Your task to perform on an android device: move a message to another label in the gmail app Image 0: 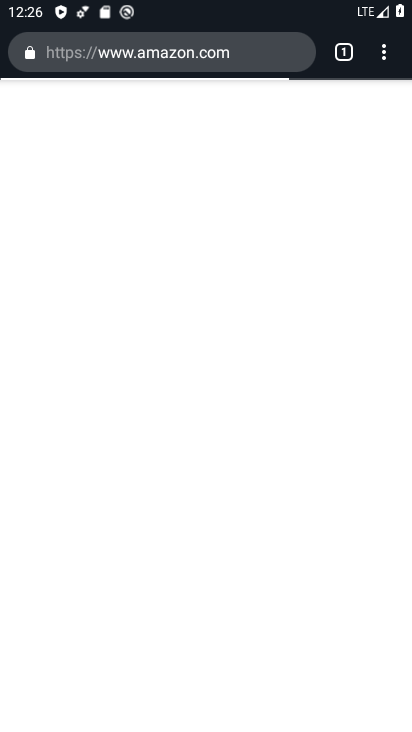
Step 0: press home button
Your task to perform on an android device: move a message to another label in the gmail app Image 1: 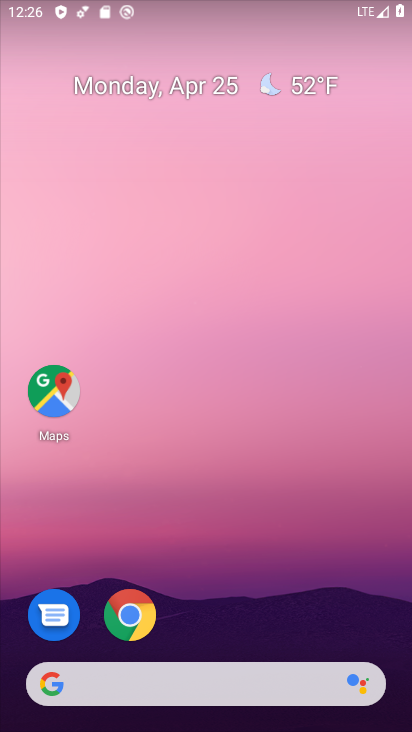
Step 1: drag from (147, 646) to (205, 241)
Your task to perform on an android device: move a message to another label in the gmail app Image 2: 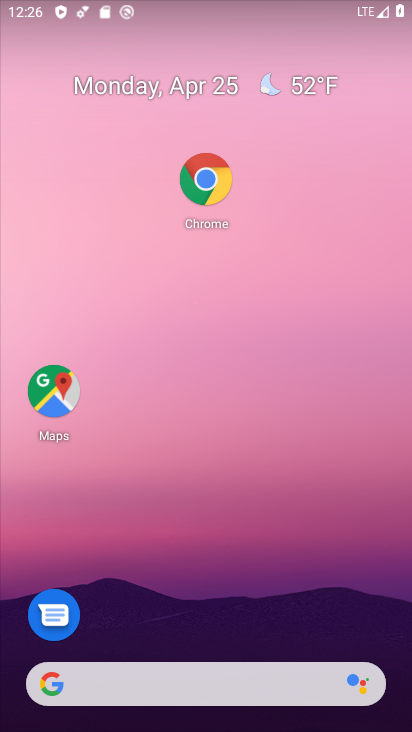
Step 2: drag from (173, 683) to (304, 115)
Your task to perform on an android device: move a message to another label in the gmail app Image 3: 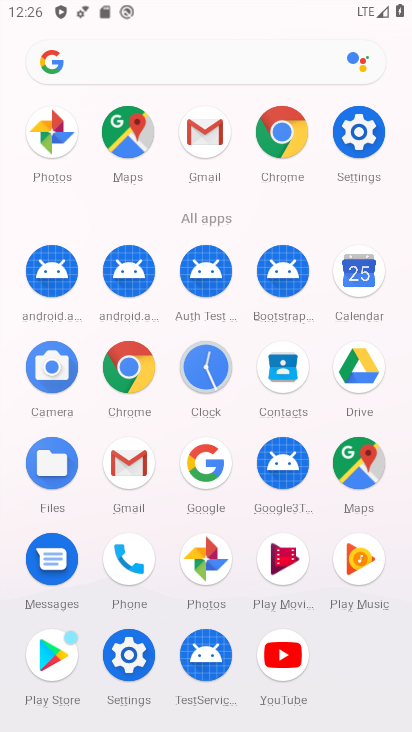
Step 3: click (203, 136)
Your task to perform on an android device: move a message to another label in the gmail app Image 4: 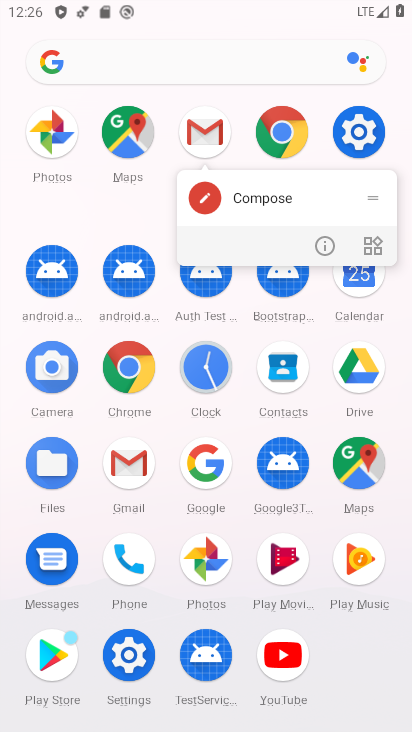
Step 4: click (195, 143)
Your task to perform on an android device: move a message to another label in the gmail app Image 5: 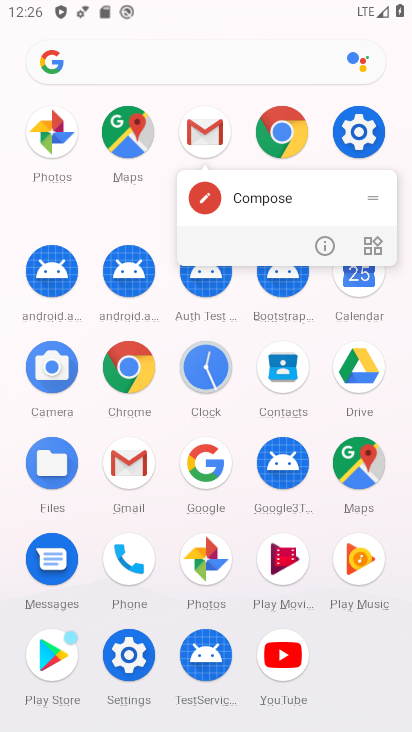
Step 5: click (200, 140)
Your task to perform on an android device: move a message to another label in the gmail app Image 6: 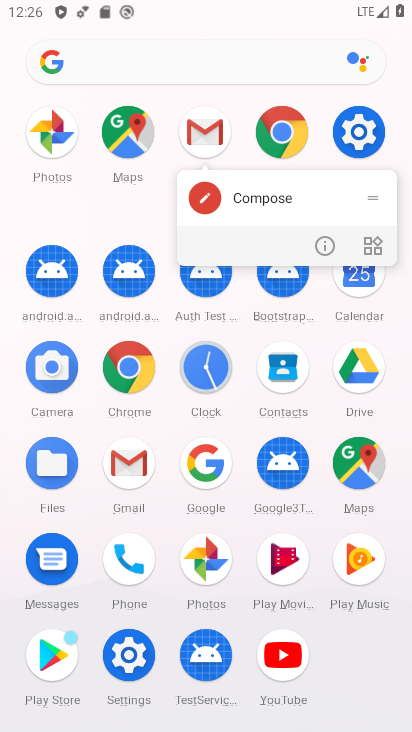
Step 6: click (205, 134)
Your task to perform on an android device: move a message to another label in the gmail app Image 7: 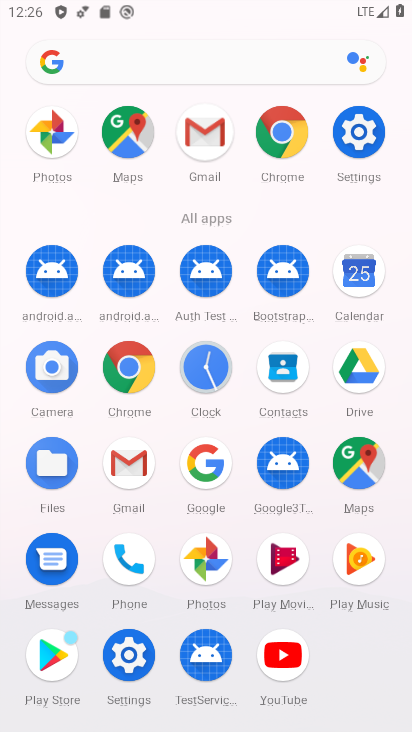
Step 7: click (198, 147)
Your task to perform on an android device: move a message to another label in the gmail app Image 8: 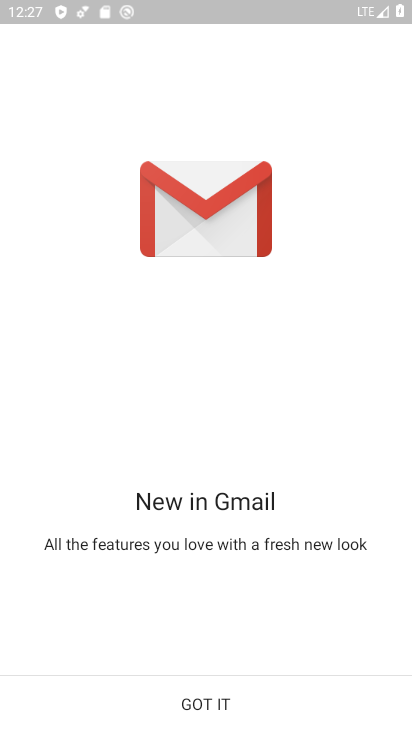
Step 8: click (226, 708)
Your task to perform on an android device: move a message to another label in the gmail app Image 9: 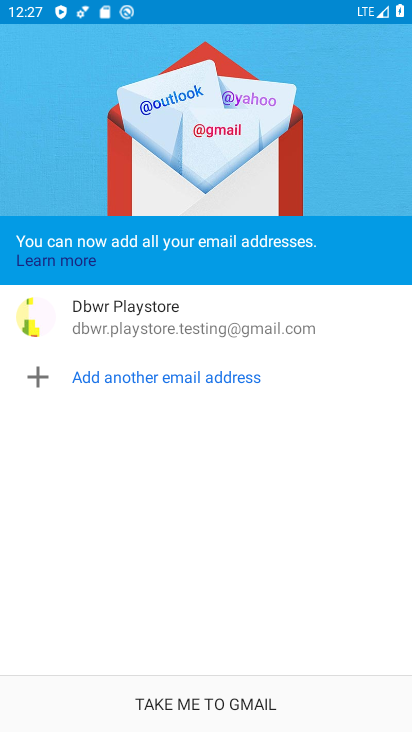
Step 9: click (203, 700)
Your task to perform on an android device: move a message to another label in the gmail app Image 10: 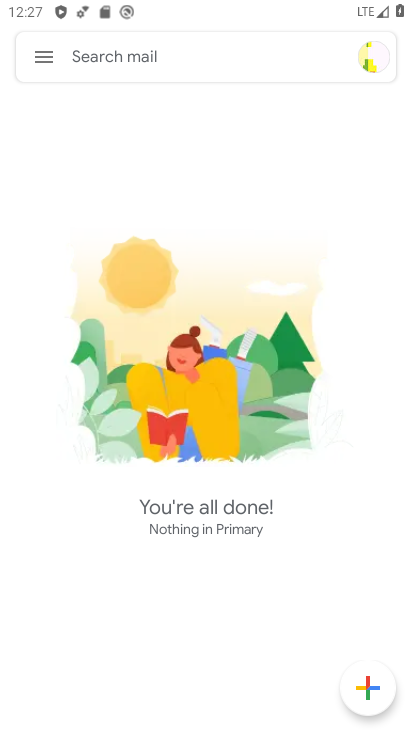
Step 10: click (45, 63)
Your task to perform on an android device: move a message to another label in the gmail app Image 11: 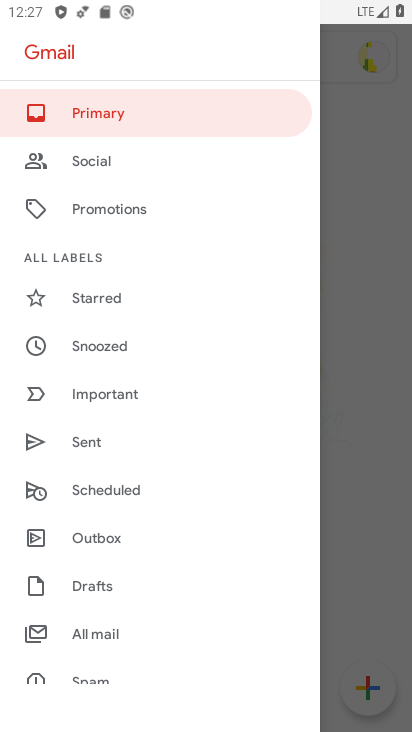
Step 11: click (95, 631)
Your task to perform on an android device: move a message to another label in the gmail app Image 12: 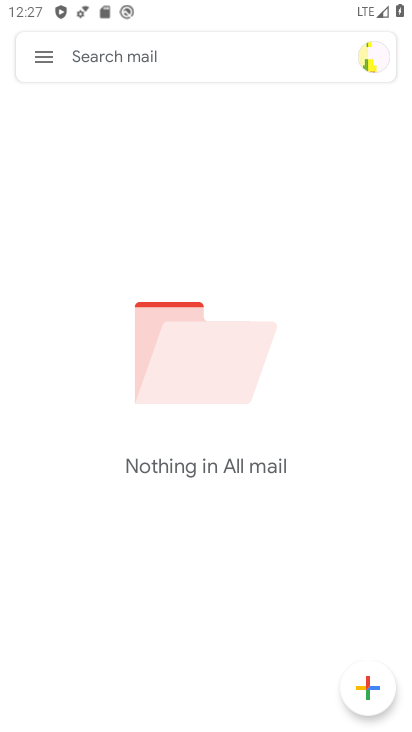
Step 12: task complete